Your task to perform on an android device: Search for sushi restaurants on Maps Image 0: 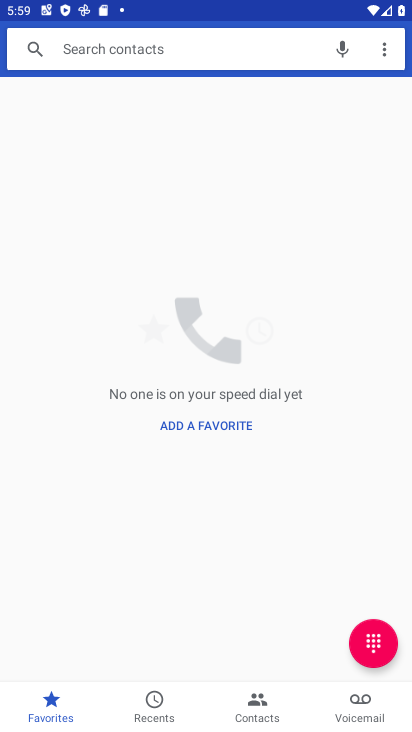
Step 0: press home button
Your task to perform on an android device: Search for sushi restaurants on Maps Image 1: 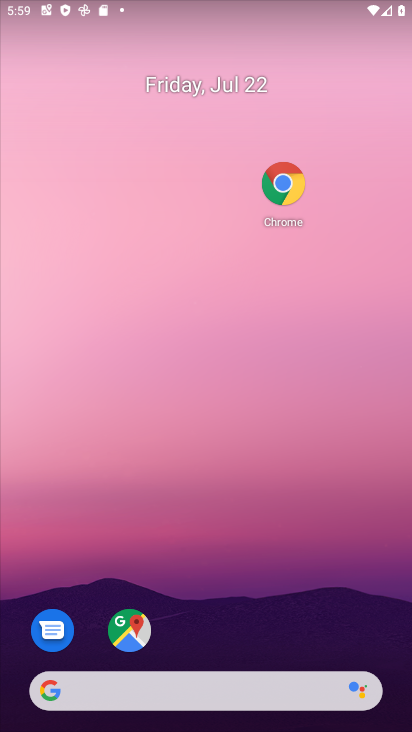
Step 1: click (132, 641)
Your task to perform on an android device: Search for sushi restaurants on Maps Image 2: 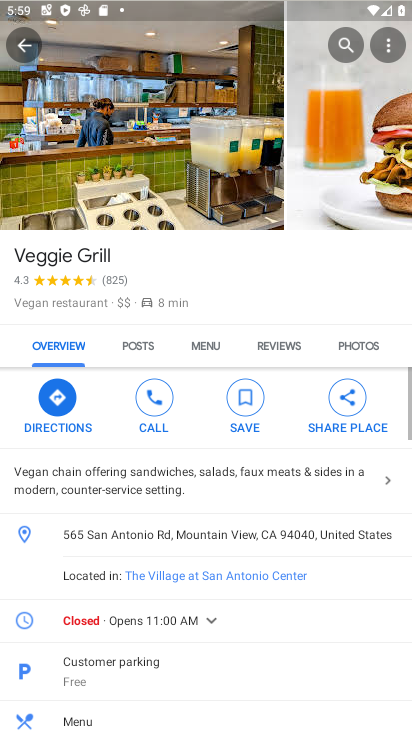
Step 2: click (18, 50)
Your task to perform on an android device: Search for sushi restaurants on Maps Image 3: 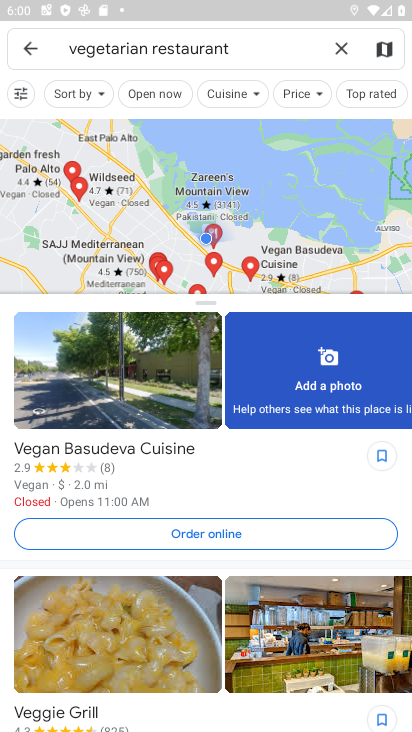
Step 3: click (34, 50)
Your task to perform on an android device: Search for sushi restaurants on Maps Image 4: 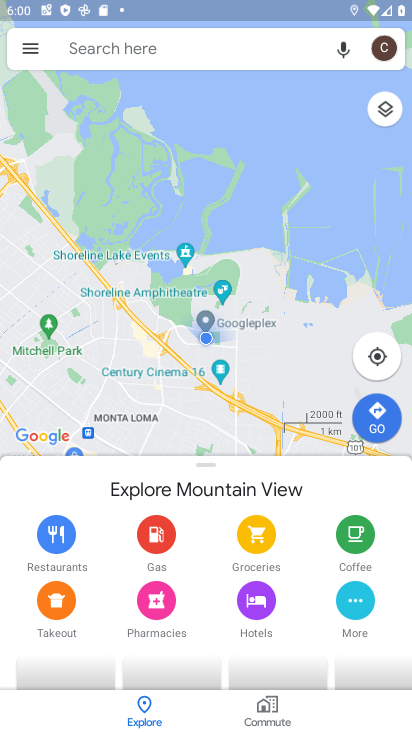
Step 4: click (124, 47)
Your task to perform on an android device: Search for sushi restaurants on Maps Image 5: 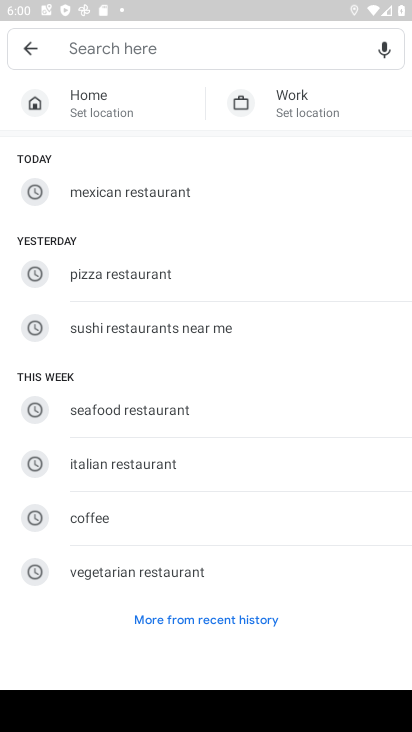
Step 5: type "sushi restaurants"
Your task to perform on an android device: Search for sushi restaurants on Maps Image 6: 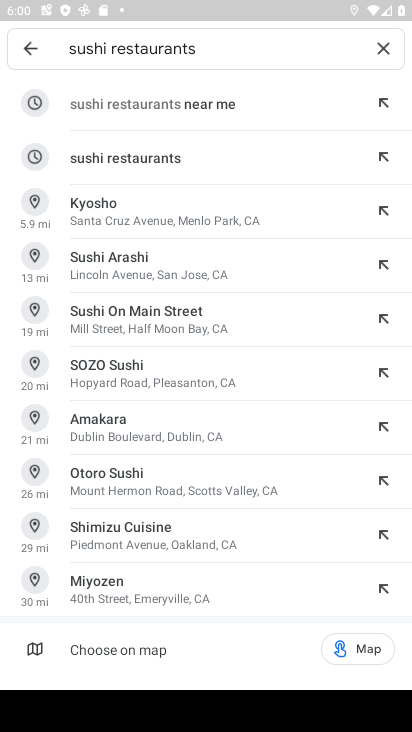
Step 6: click (177, 158)
Your task to perform on an android device: Search for sushi restaurants on Maps Image 7: 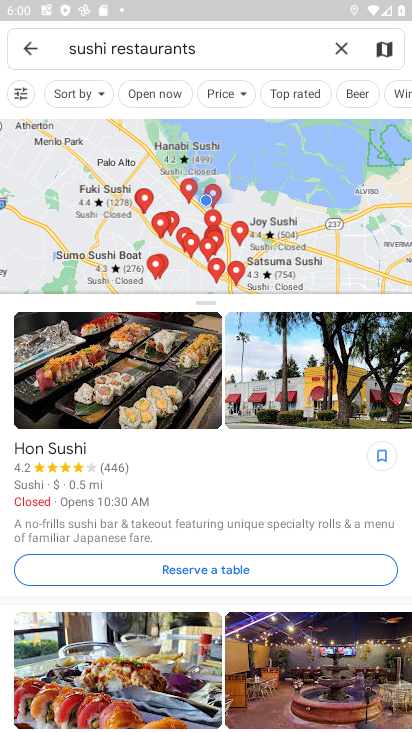
Step 7: task complete